Your task to perform on an android device: Open Youtube and go to "Your channel" Image 0: 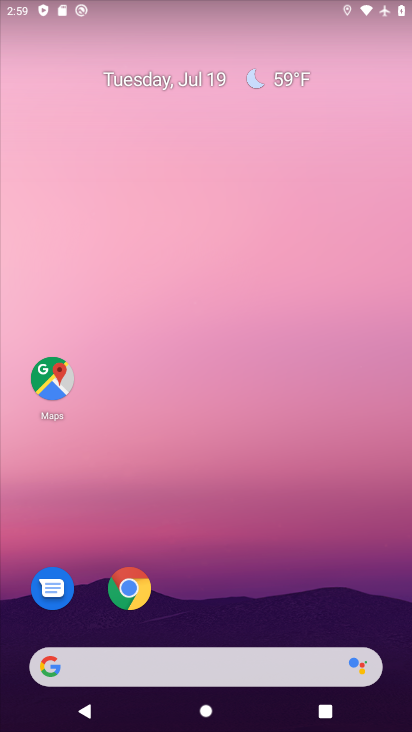
Step 0: press home button
Your task to perform on an android device: Open Youtube and go to "Your channel" Image 1: 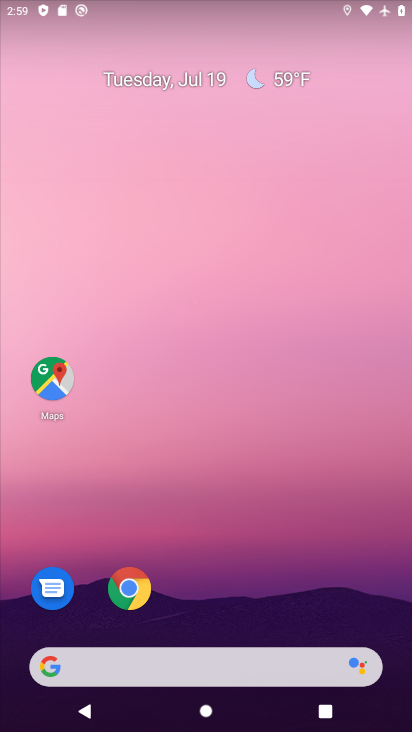
Step 1: drag from (287, 614) to (247, 111)
Your task to perform on an android device: Open Youtube and go to "Your channel" Image 2: 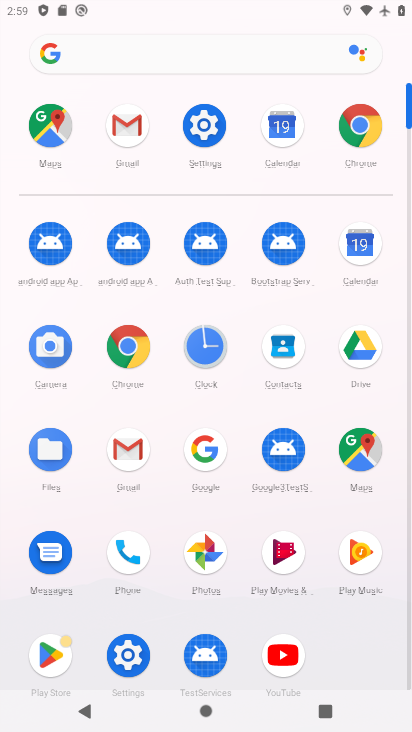
Step 2: click (274, 656)
Your task to perform on an android device: Open Youtube and go to "Your channel" Image 3: 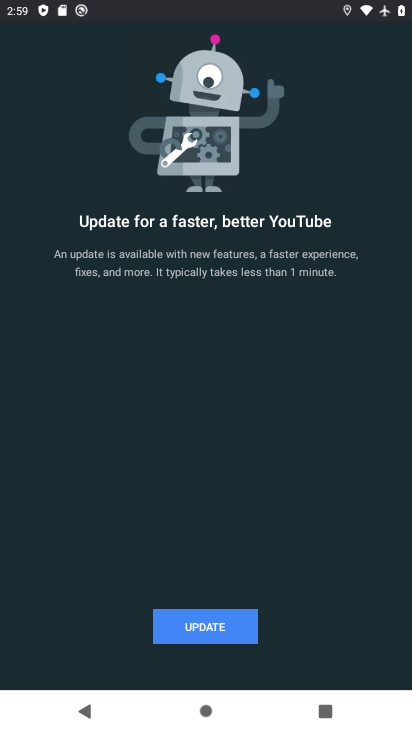
Step 3: click (196, 630)
Your task to perform on an android device: Open Youtube and go to "Your channel" Image 4: 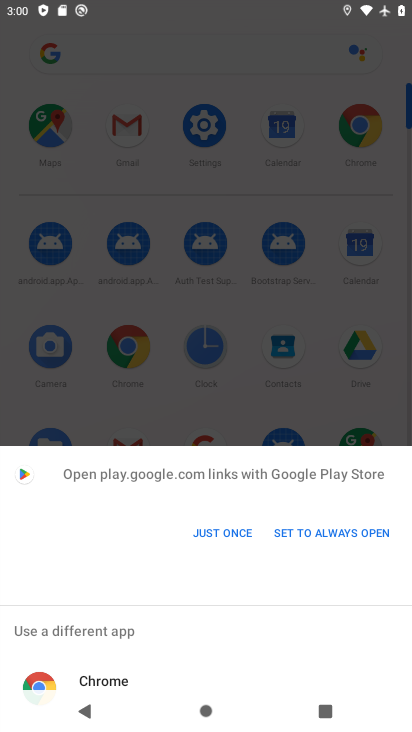
Step 4: drag from (276, 653) to (344, 359)
Your task to perform on an android device: Open Youtube and go to "Your channel" Image 5: 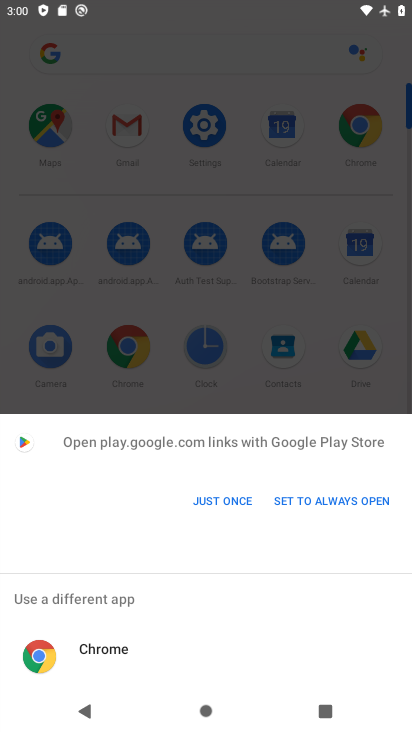
Step 5: click (220, 509)
Your task to perform on an android device: Open Youtube and go to "Your channel" Image 6: 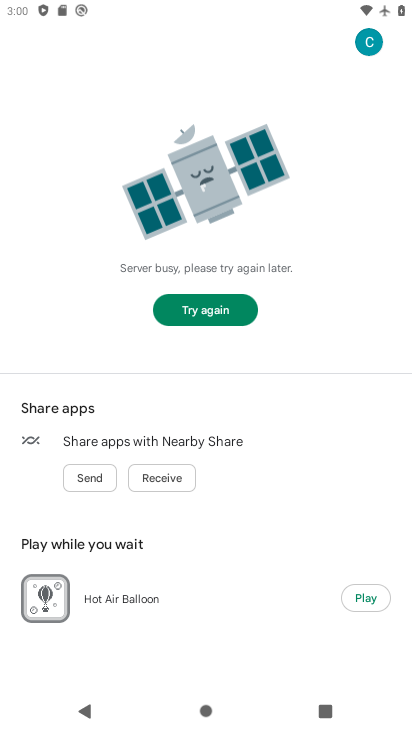
Step 6: click (199, 321)
Your task to perform on an android device: Open Youtube and go to "Your channel" Image 7: 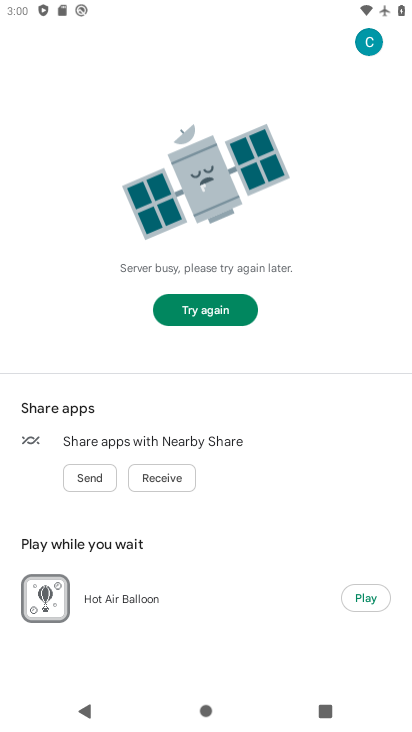
Step 7: task complete